Your task to perform on an android device: Open Amazon Image 0: 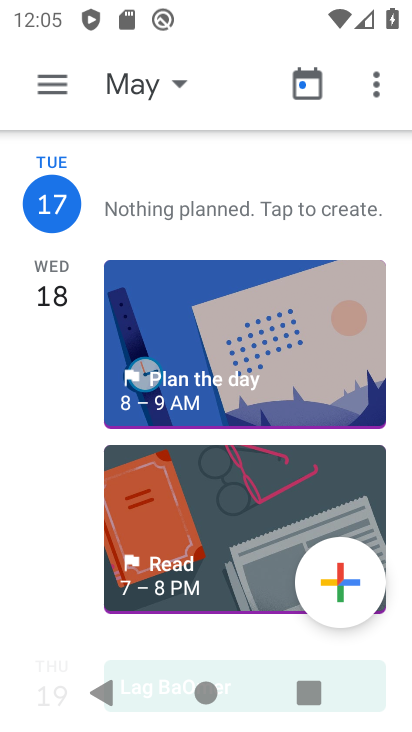
Step 0: press home button
Your task to perform on an android device: Open Amazon Image 1: 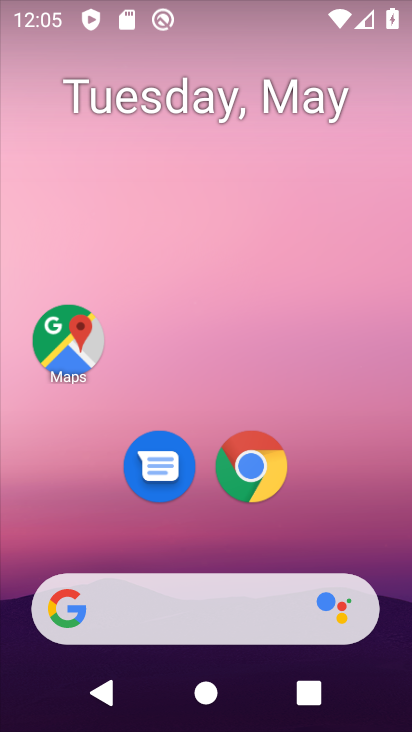
Step 1: click (255, 458)
Your task to perform on an android device: Open Amazon Image 2: 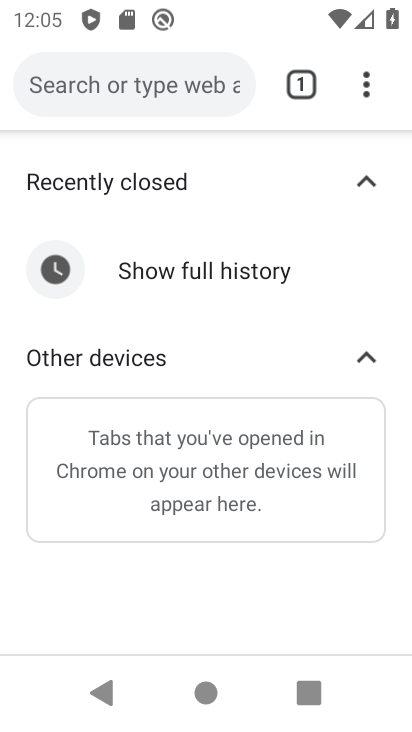
Step 2: click (141, 86)
Your task to perform on an android device: Open Amazon Image 3: 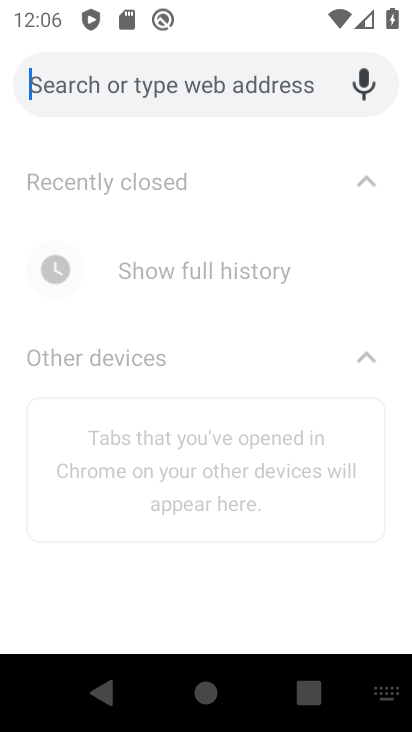
Step 3: type "Amazon"
Your task to perform on an android device: Open Amazon Image 4: 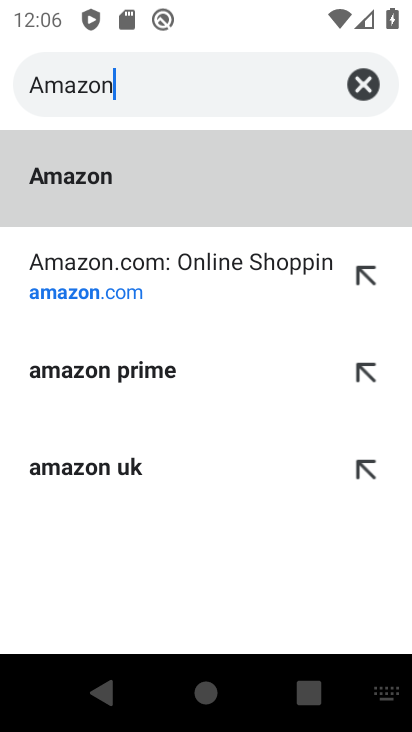
Step 4: click (105, 185)
Your task to perform on an android device: Open Amazon Image 5: 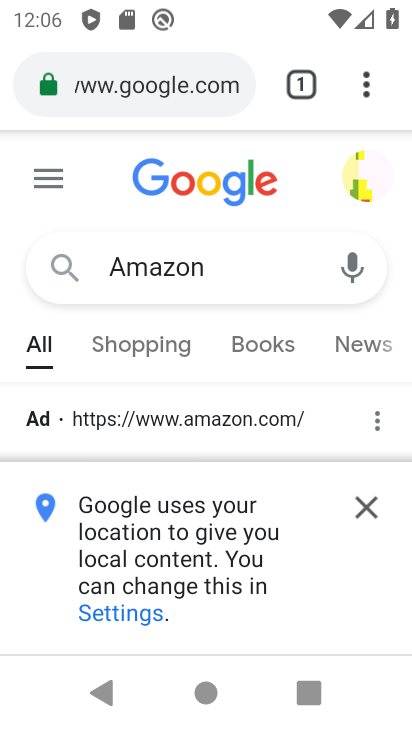
Step 5: task complete